Your task to perform on an android device: See recent photos Image 0: 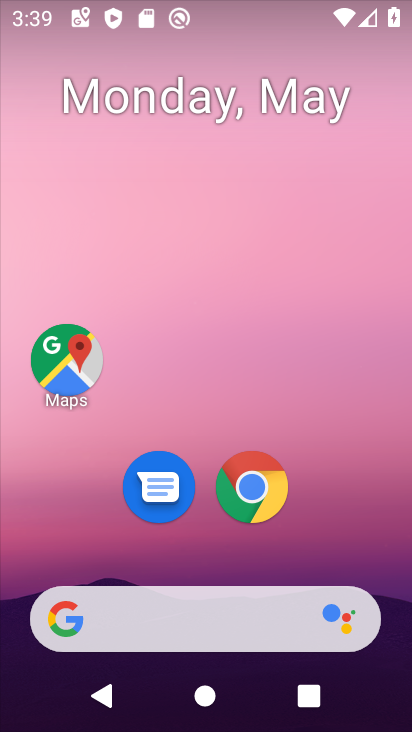
Step 0: drag from (203, 468) to (235, 192)
Your task to perform on an android device: See recent photos Image 1: 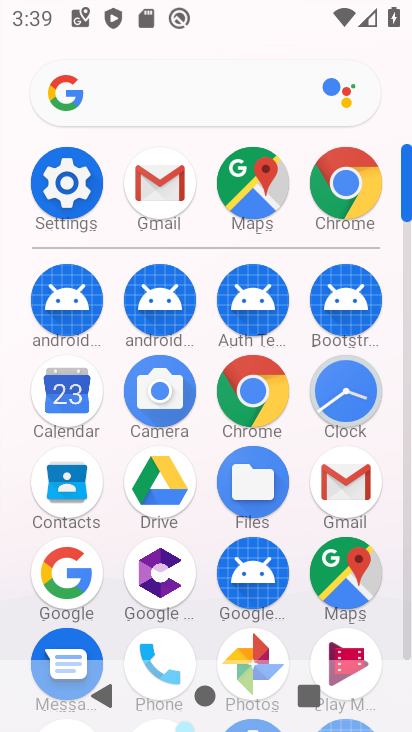
Step 1: click (260, 656)
Your task to perform on an android device: See recent photos Image 2: 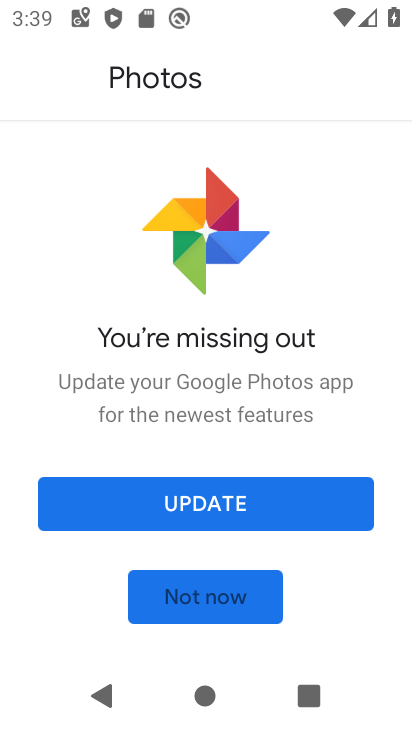
Step 2: click (151, 606)
Your task to perform on an android device: See recent photos Image 3: 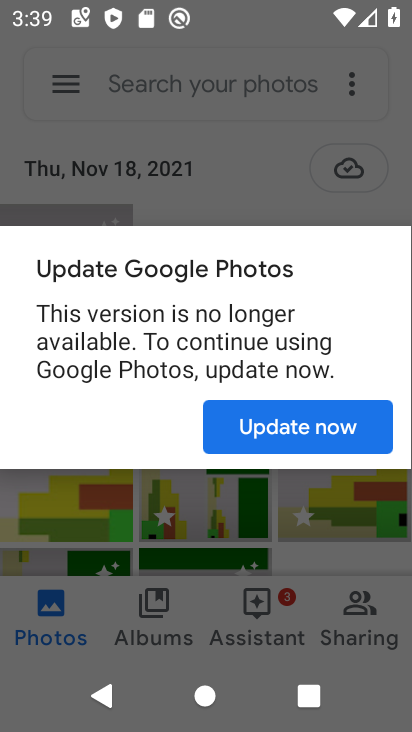
Step 3: click (277, 429)
Your task to perform on an android device: See recent photos Image 4: 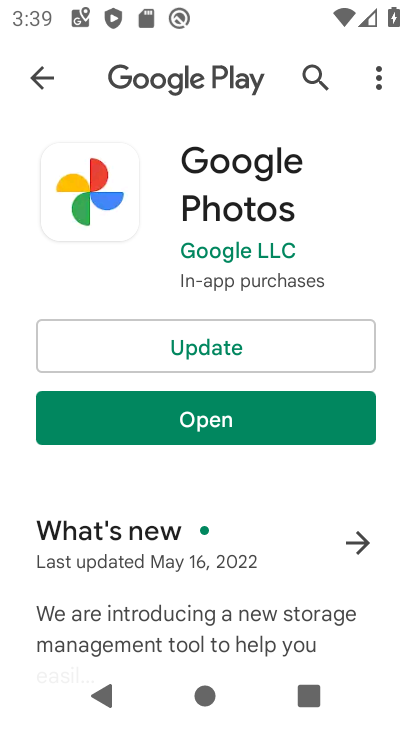
Step 4: click (205, 357)
Your task to perform on an android device: See recent photos Image 5: 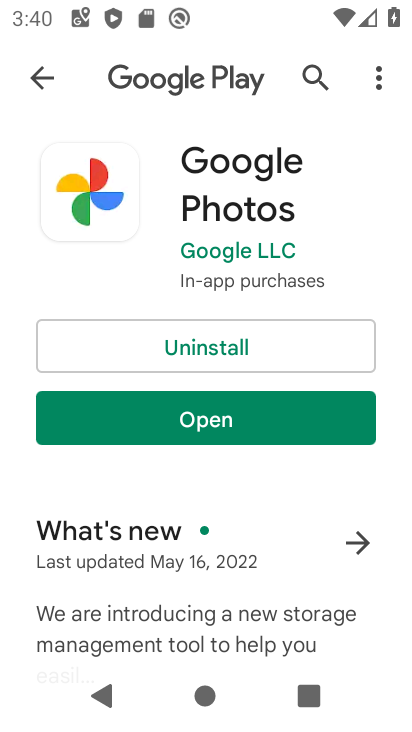
Step 5: click (195, 427)
Your task to perform on an android device: See recent photos Image 6: 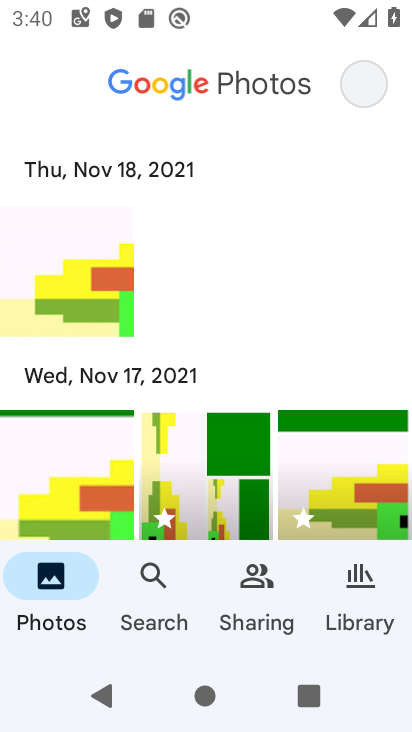
Step 6: click (97, 302)
Your task to perform on an android device: See recent photos Image 7: 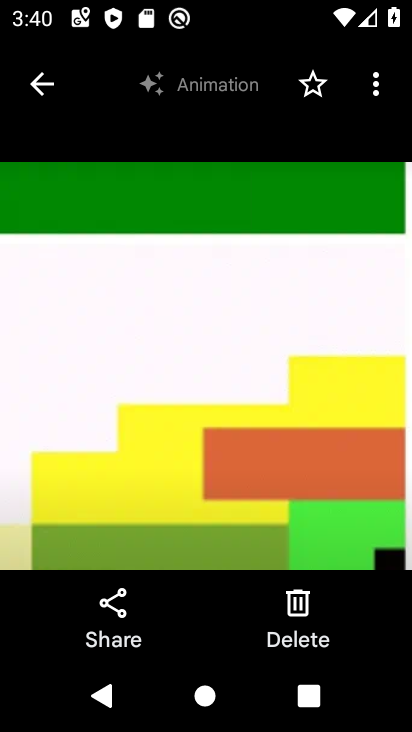
Step 7: task complete